Your task to perform on an android device: Open Wikipedia Image 0: 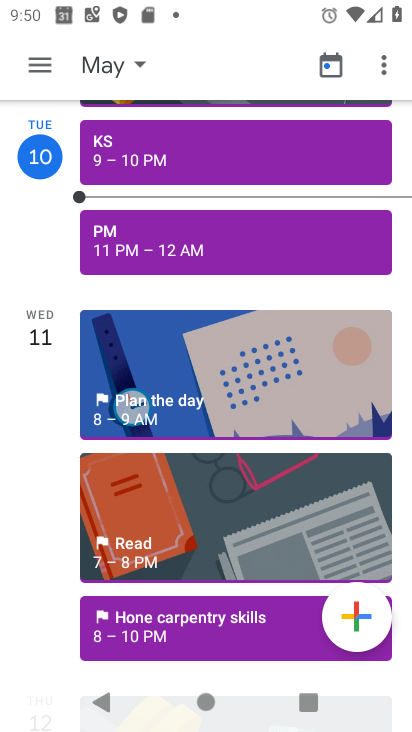
Step 0: press home button
Your task to perform on an android device: Open Wikipedia Image 1: 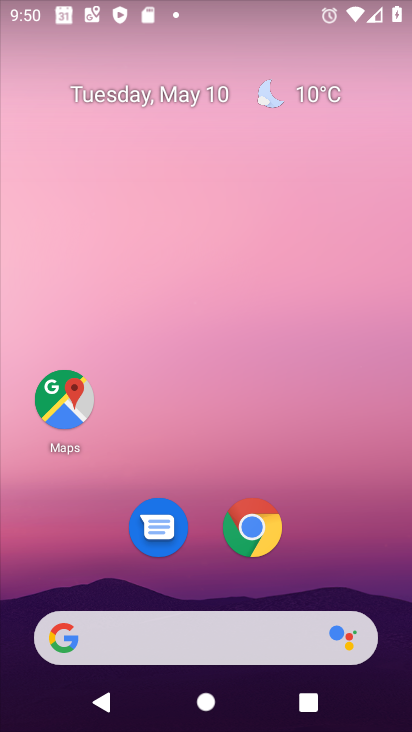
Step 1: drag from (225, 727) to (227, 124)
Your task to perform on an android device: Open Wikipedia Image 2: 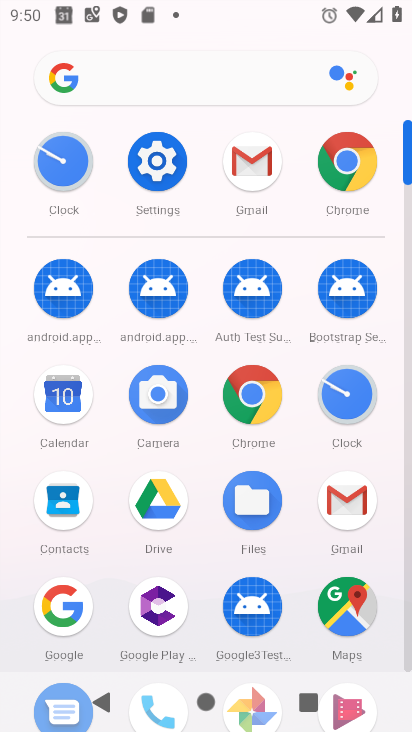
Step 2: click (343, 158)
Your task to perform on an android device: Open Wikipedia Image 3: 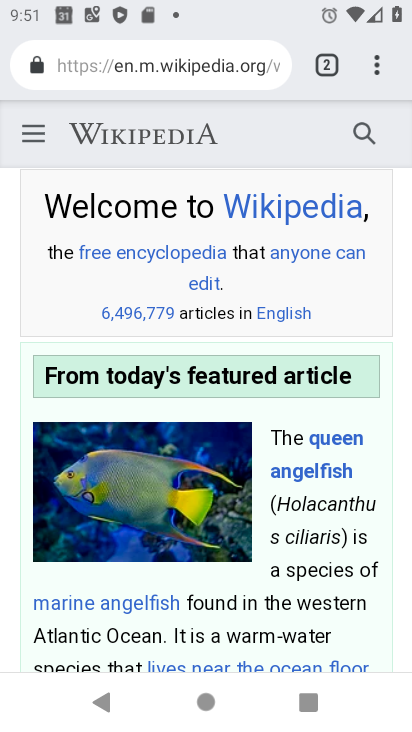
Step 3: task complete